Your task to perform on an android device: uninstall "Pinterest" Image 0: 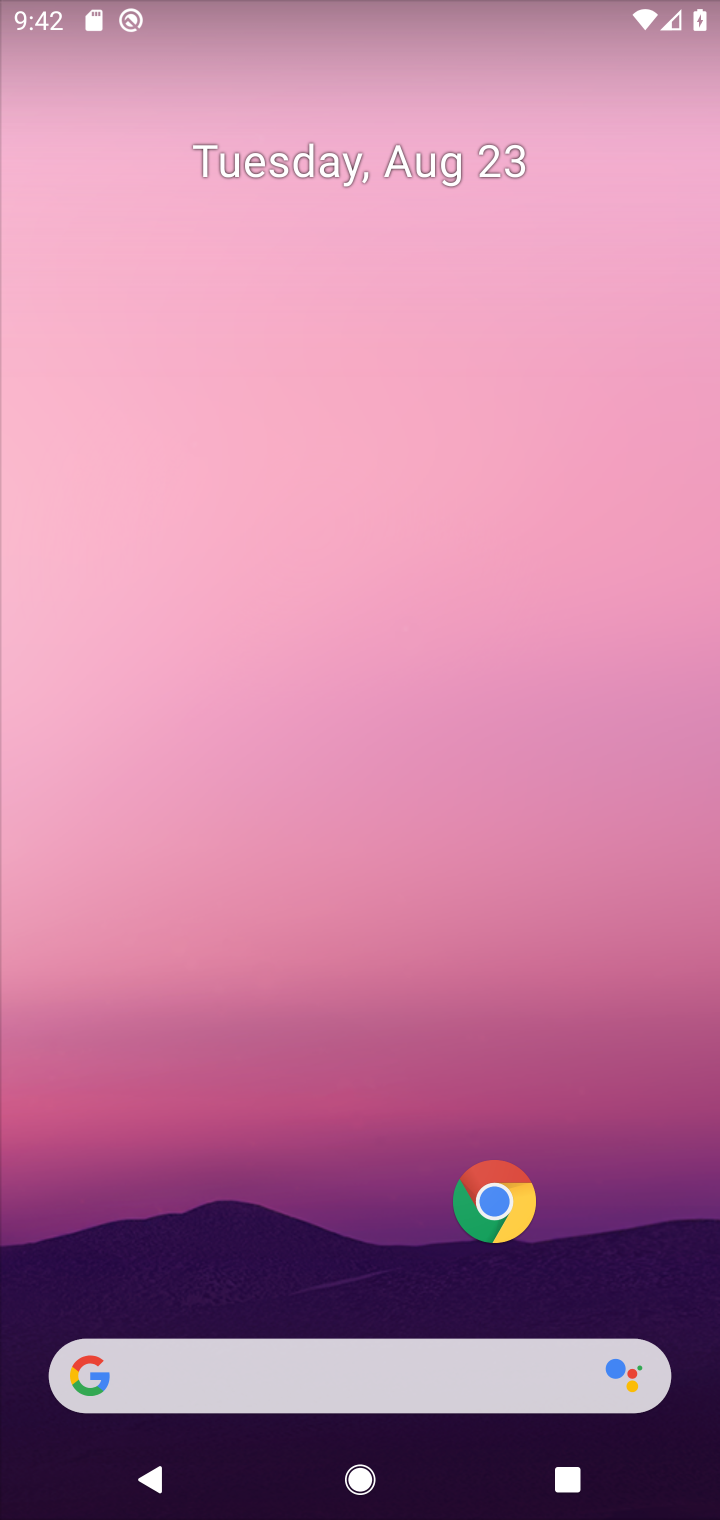
Step 0: drag from (280, 1306) to (358, 381)
Your task to perform on an android device: uninstall "Pinterest" Image 1: 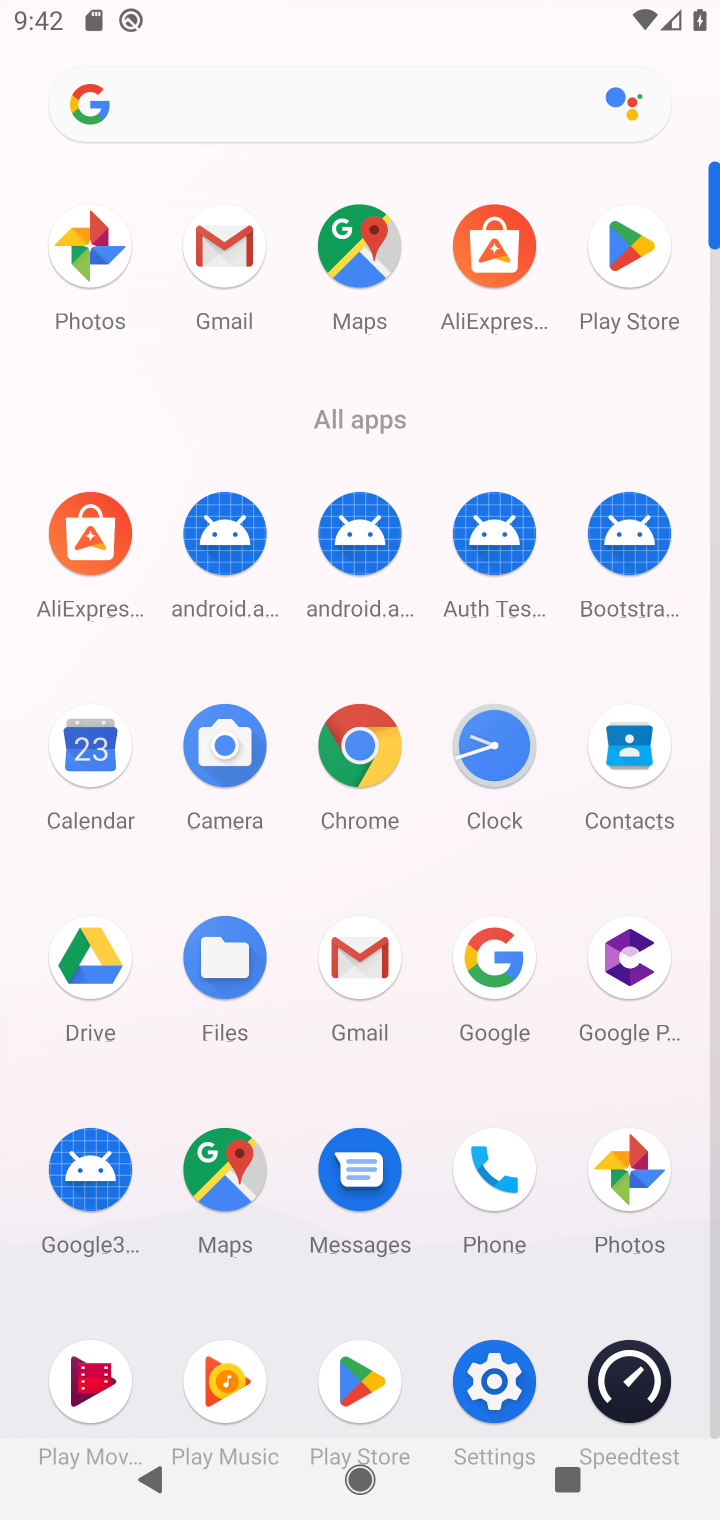
Step 1: click (637, 250)
Your task to perform on an android device: uninstall "Pinterest" Image 2: 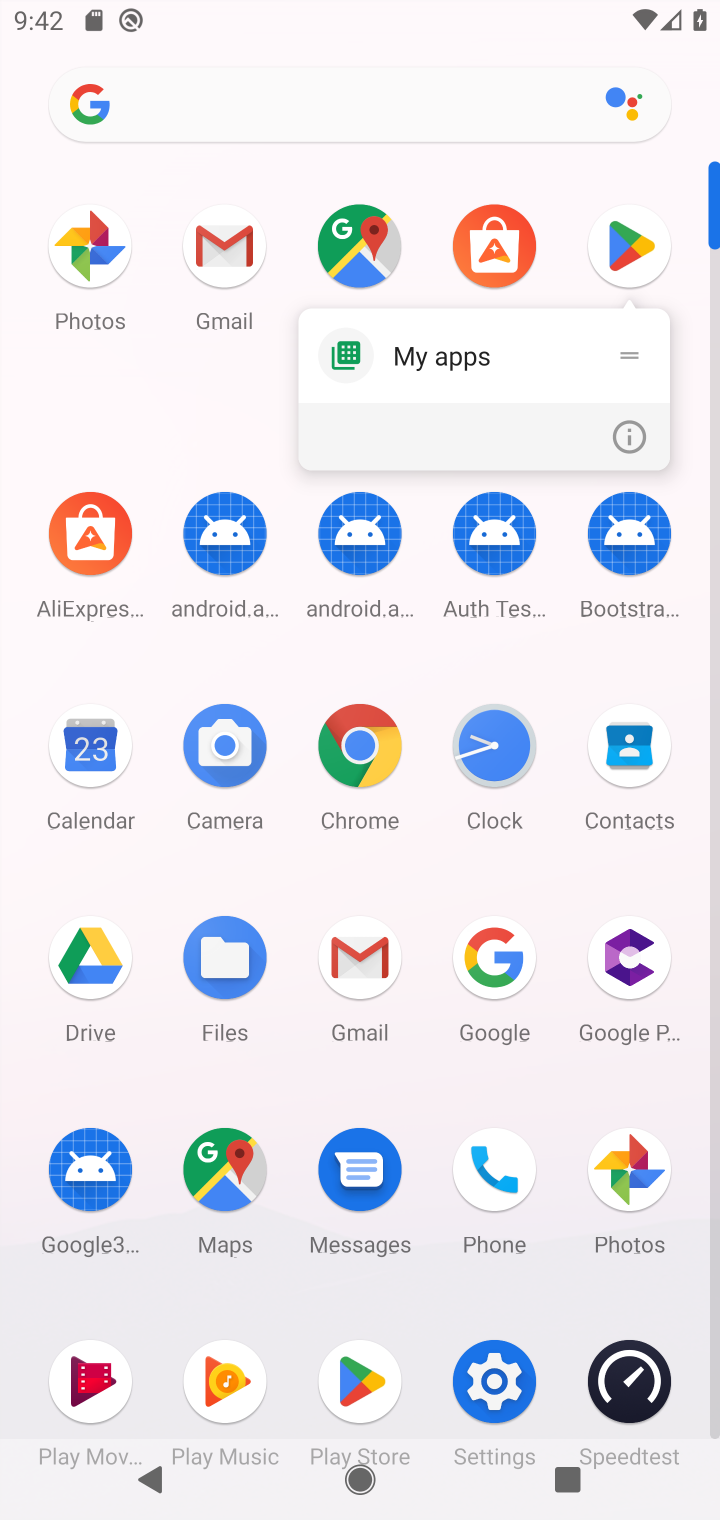
Step 2: click (630, 243)
Your task to perform on an android device: uninstall "Pinterest" Image 3: 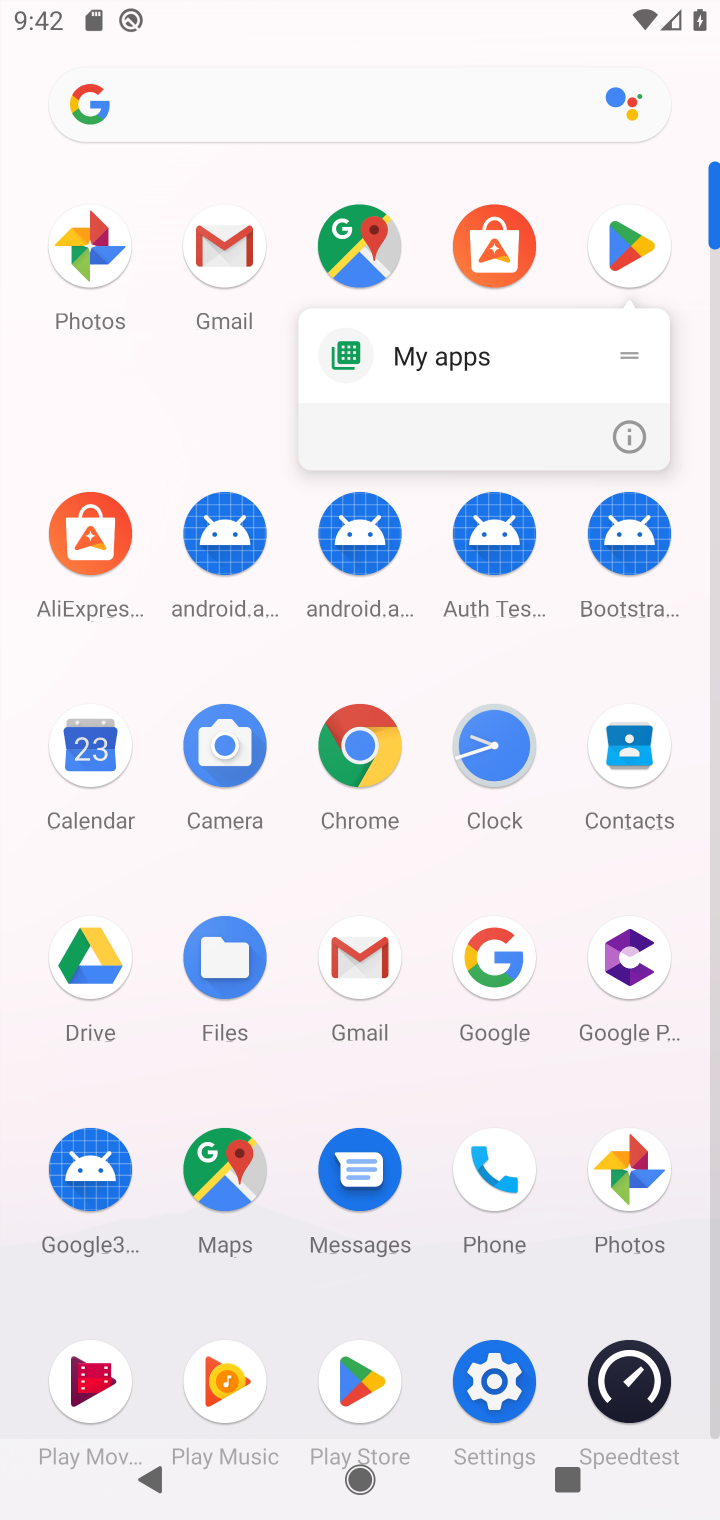
Step 3: click (630, 243)
Your task to perform on an android device: uninstall "Pinterest" Image 4: 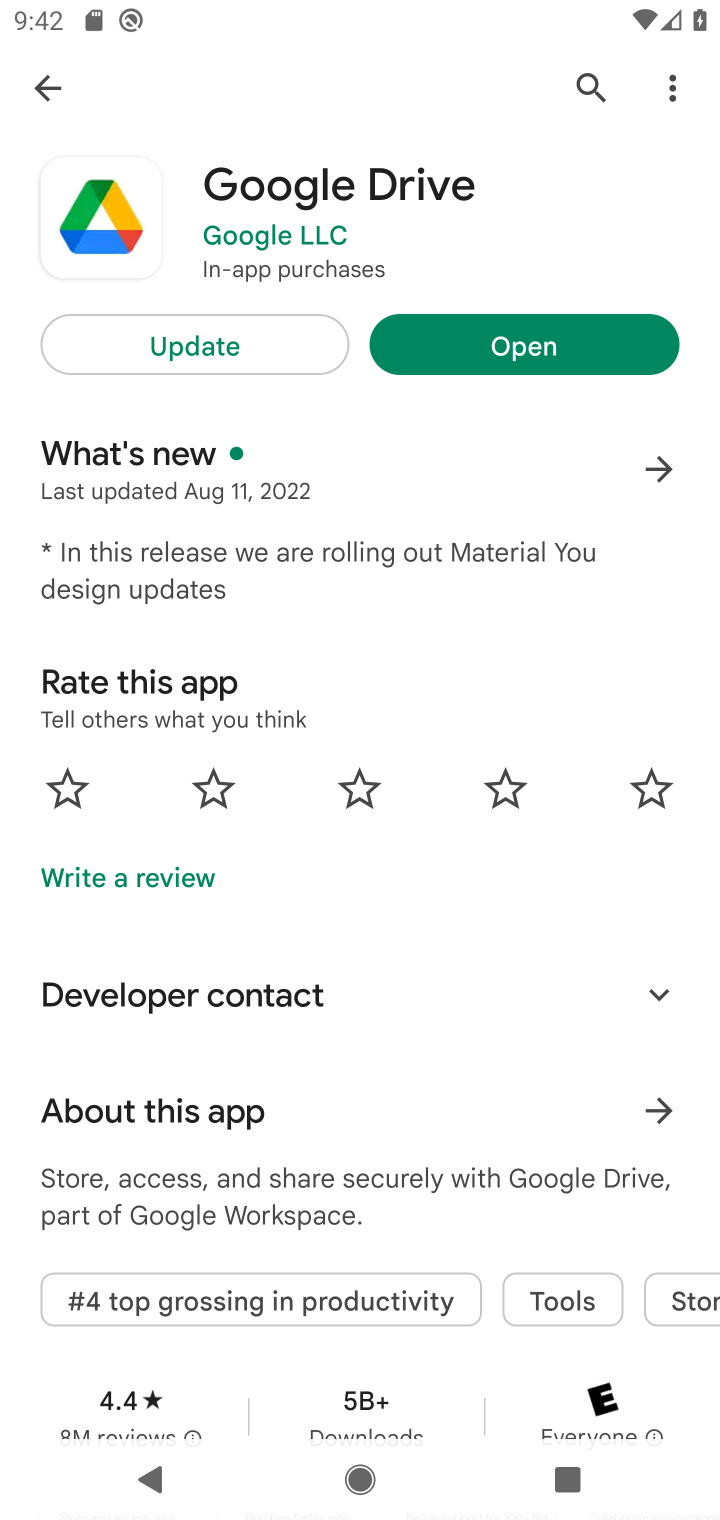
Step 4: click (48, 85)
Your task to perform on an android device: uninstall "Pinterest" Image 5: 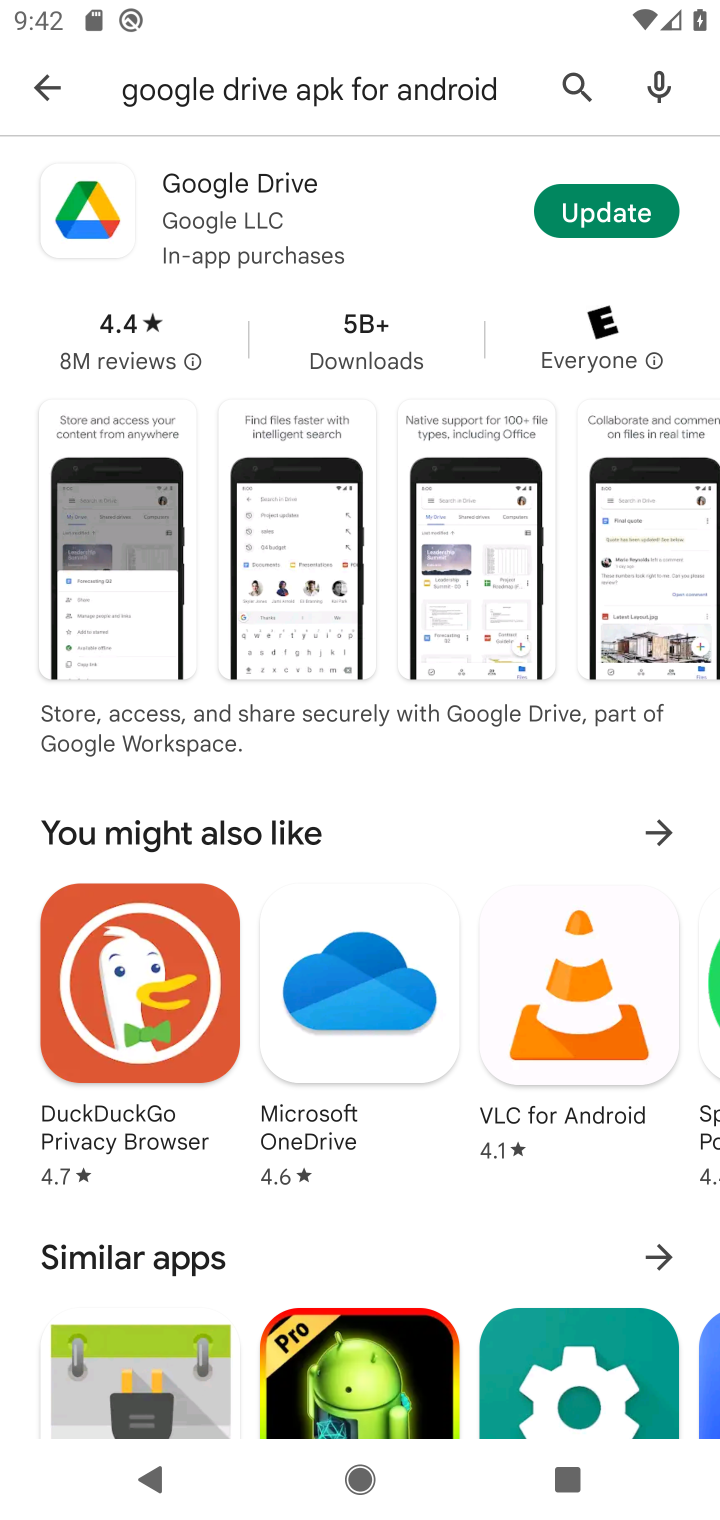
Step 5: click (26, 53)
Your task to perform on an android device: uninstall "Pinterest" Image 6: 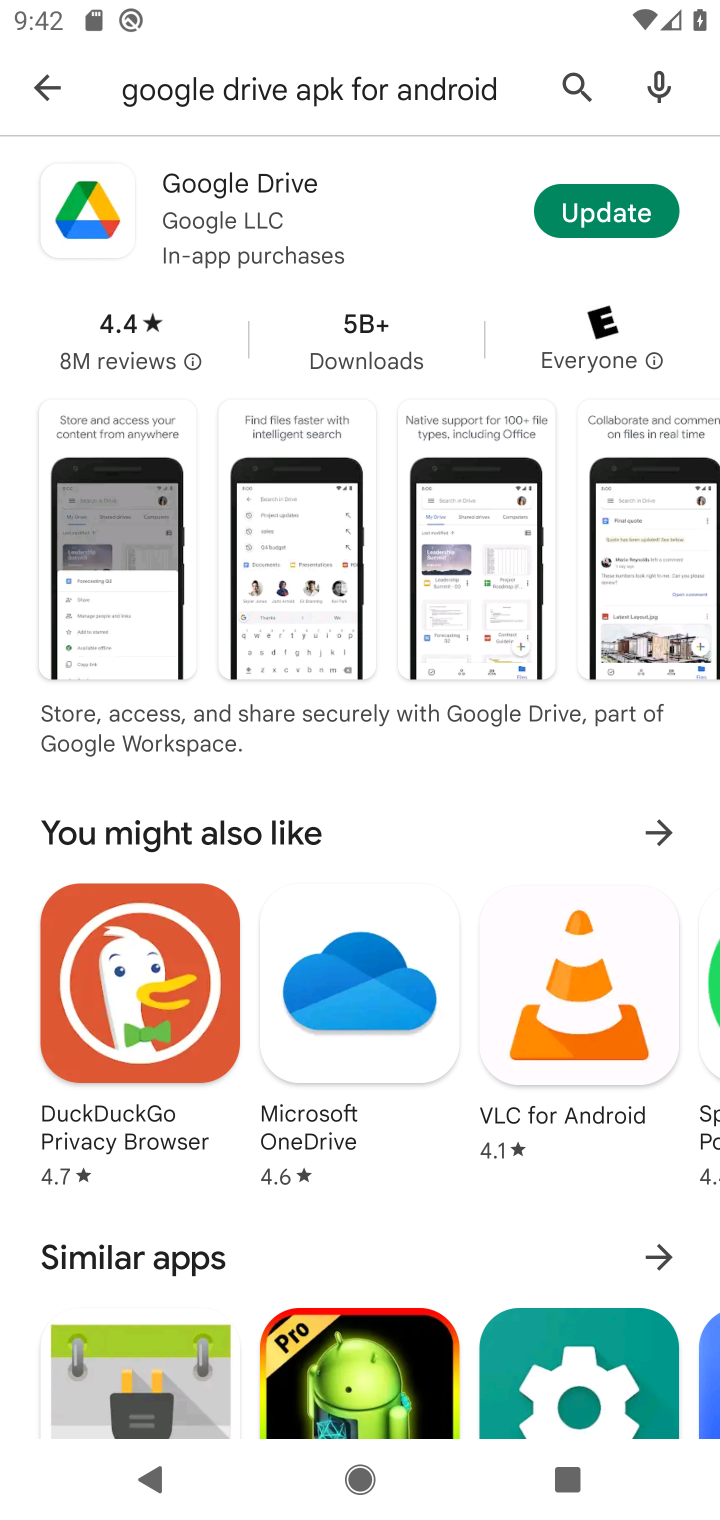
Step 6: click (567, 75)
Your task to perform on an android device: uninstall "Pinterest" Image 7: 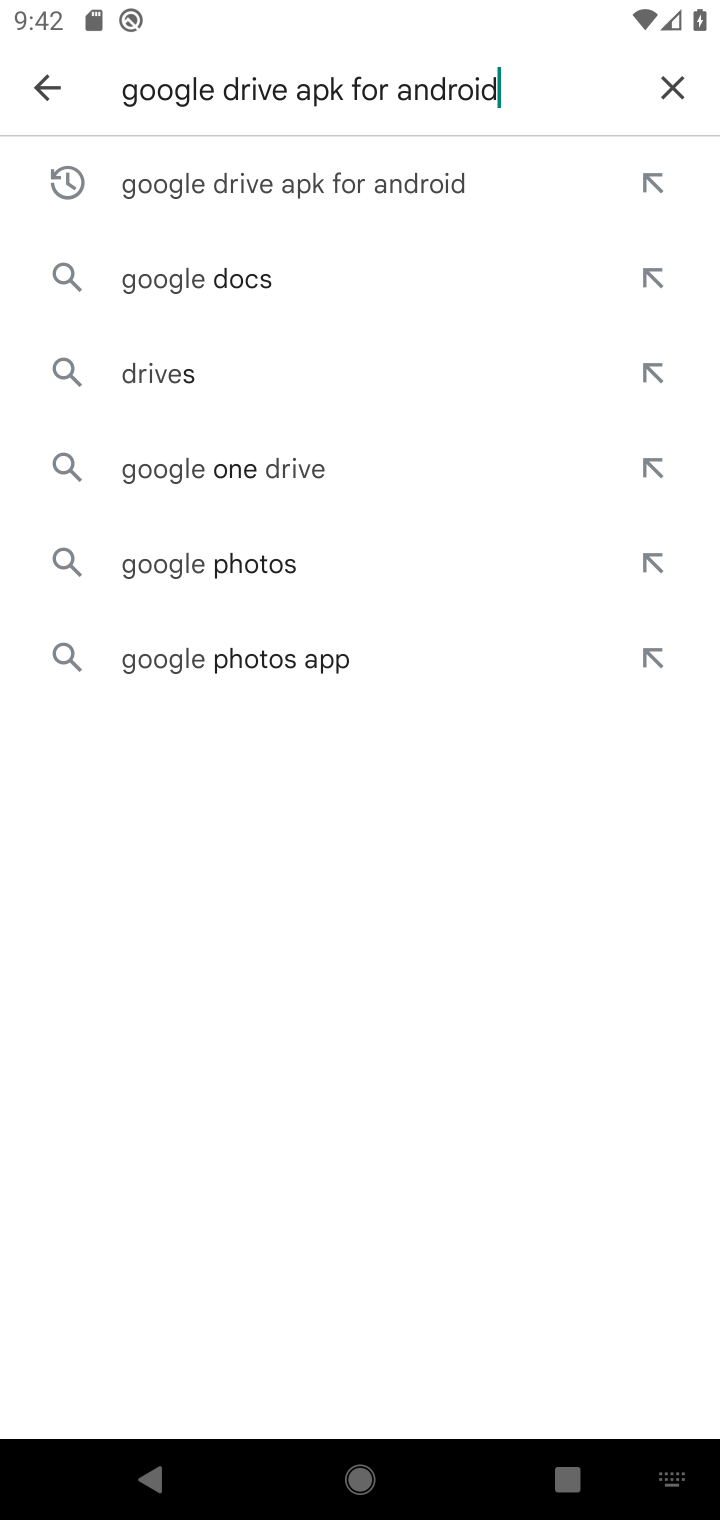
Step 7: click (672, 96)
Your task to perform on an android device: uninstall "Pinterest" Image 8: 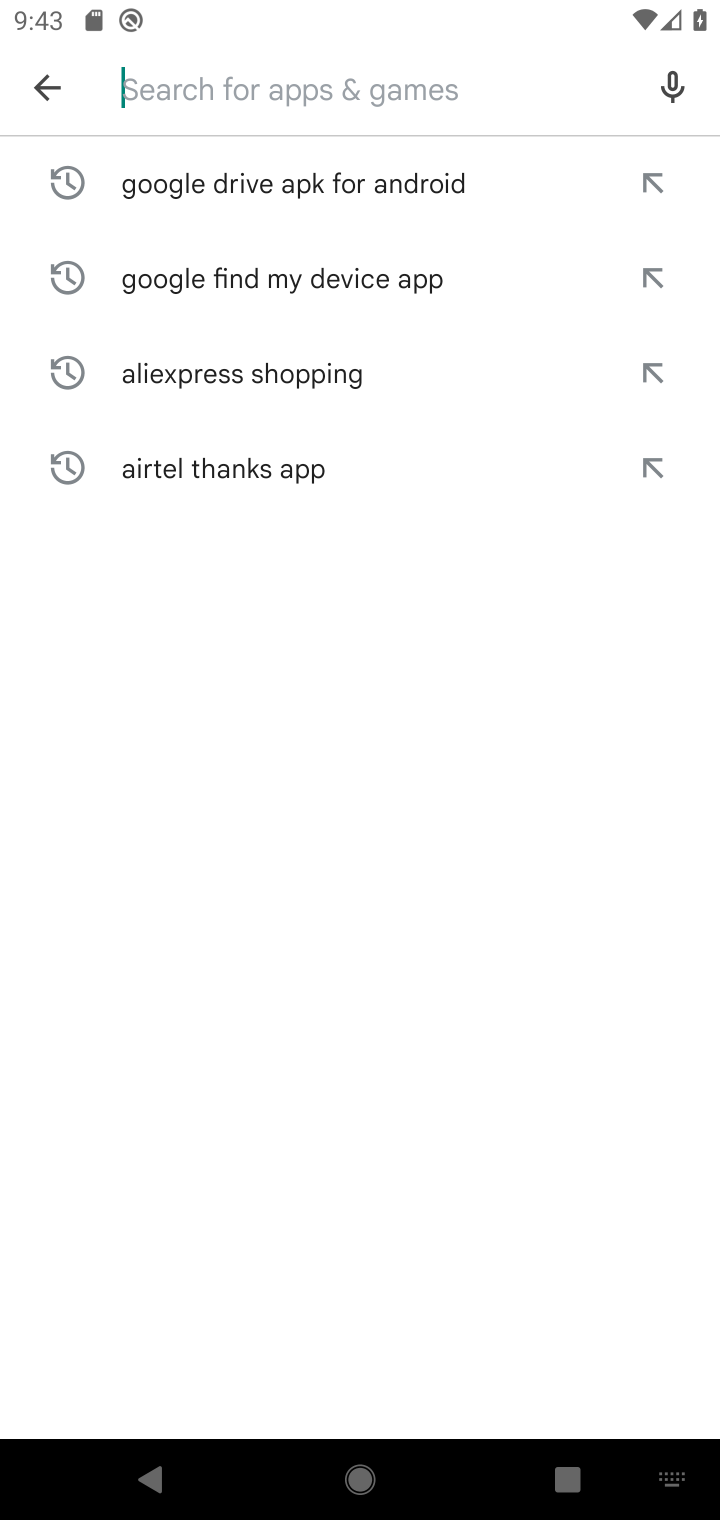
Step 8: click (301, 71)
Your task to perform on an android device: uninstall "Pinterest" Image 9: 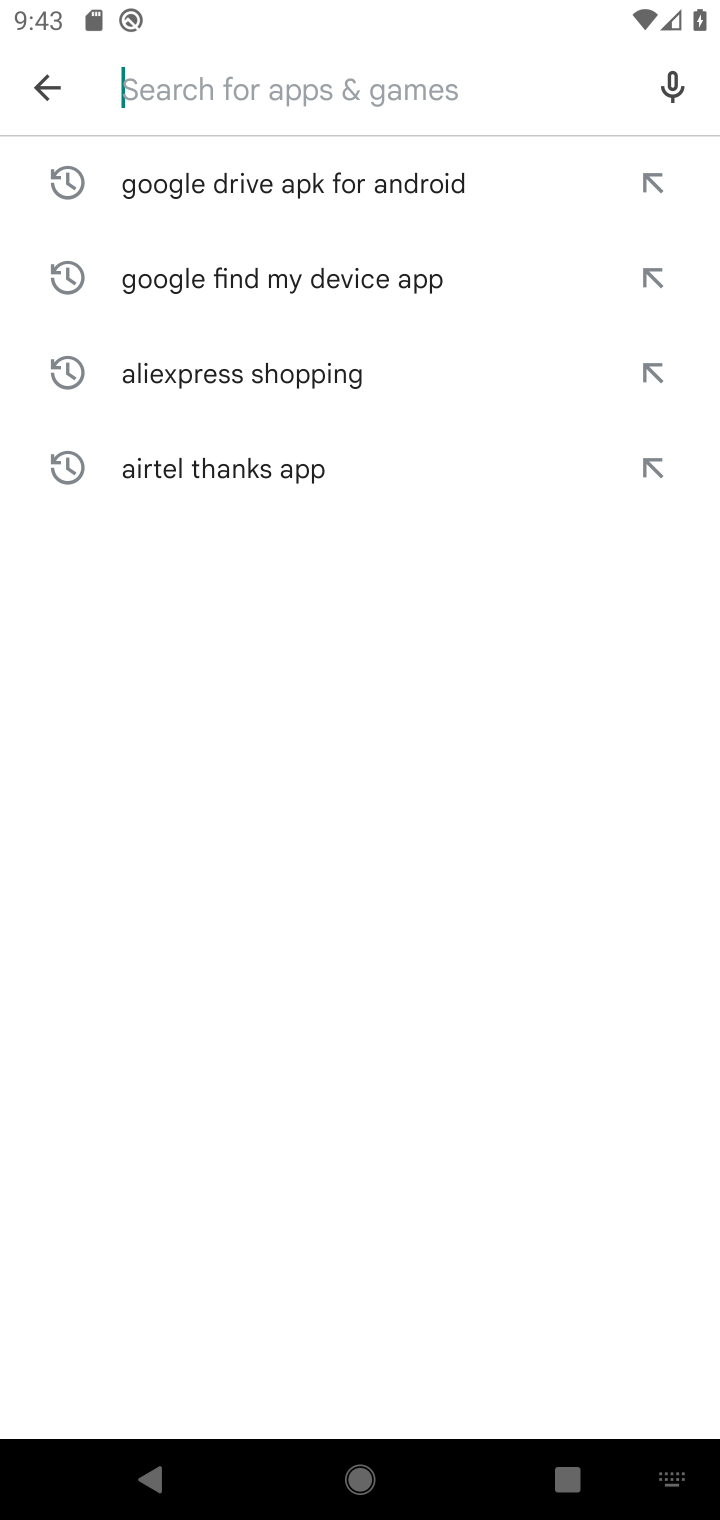
Step 9: type "Pinterest "
Your task to perform on an android device: uninstall "Pinterest" Image 10: 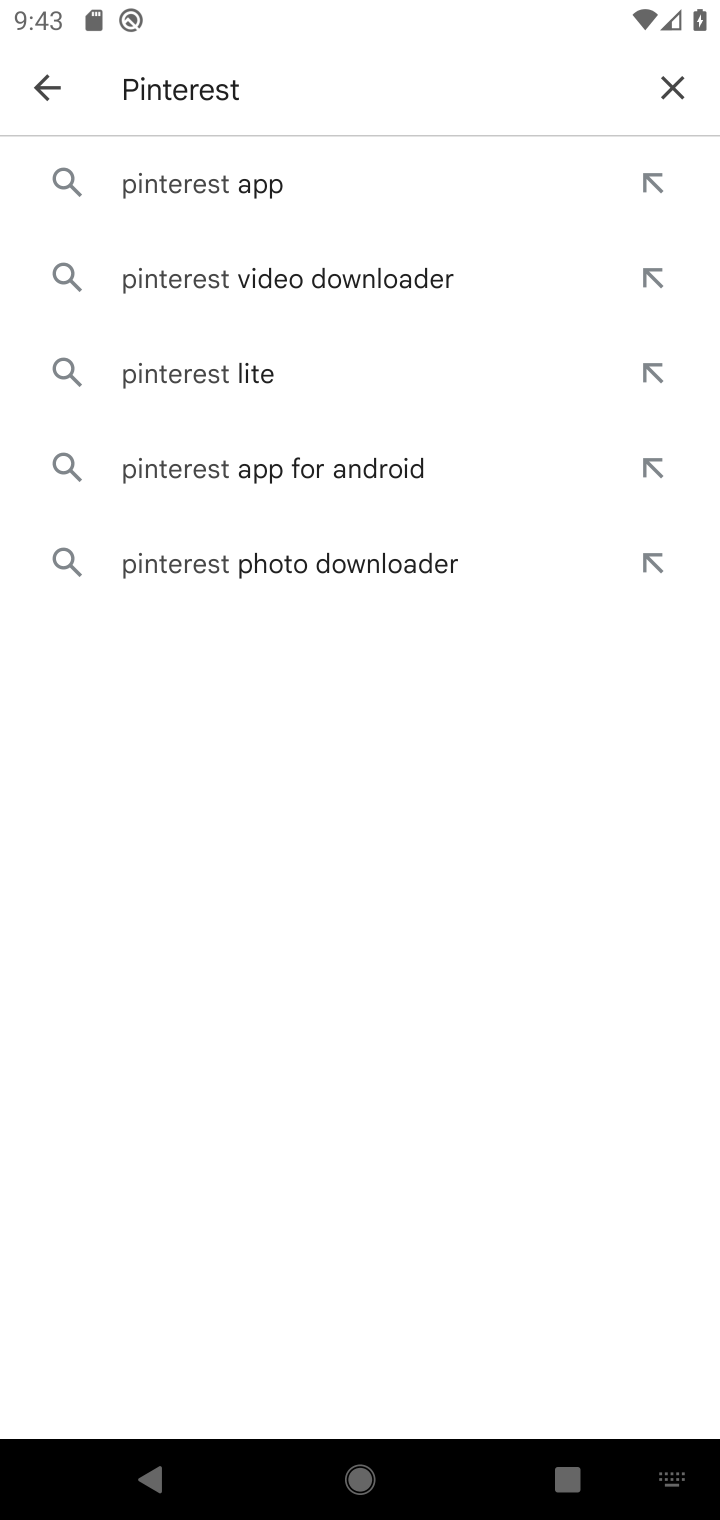
Step 10: click (289, 188)
Your task to perform on an android device: uninstall "Pinterest" Image 11: 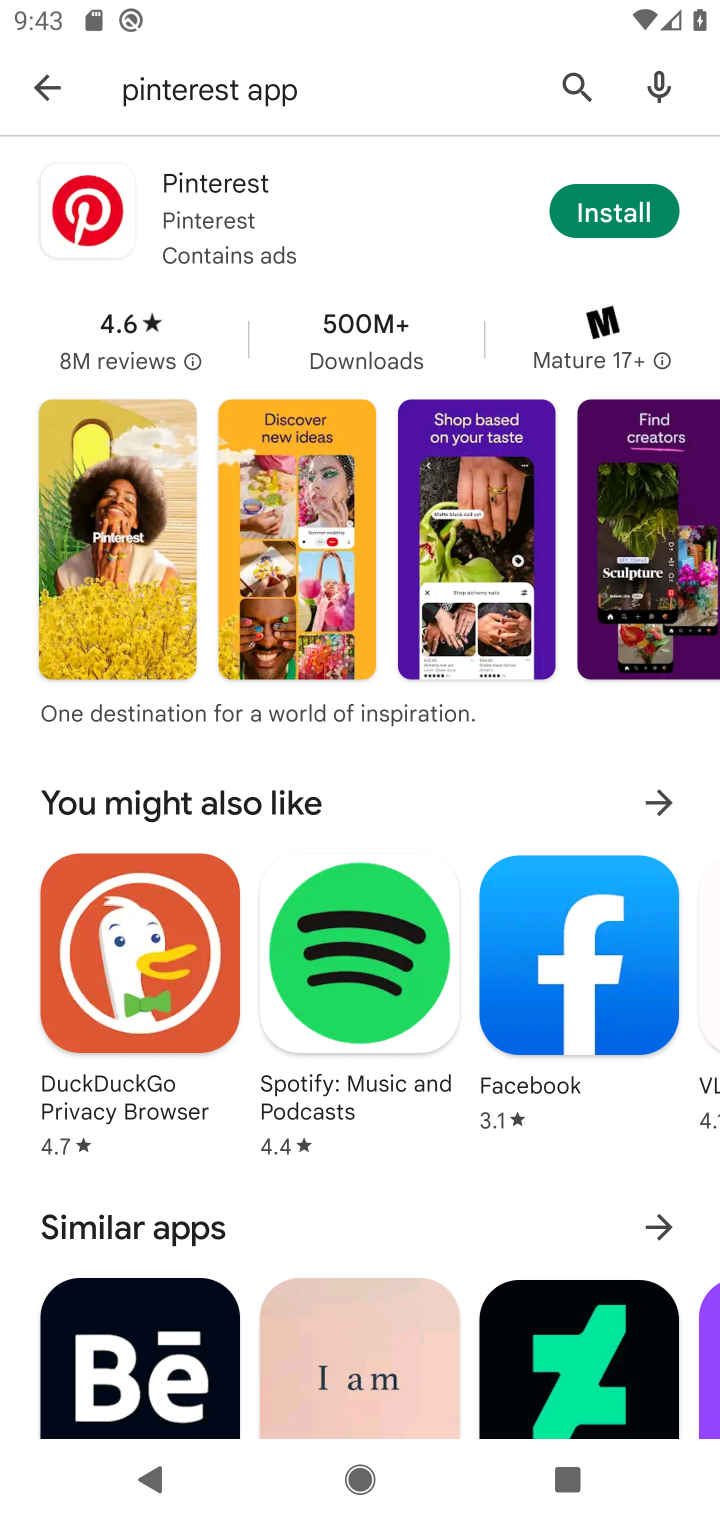
Step 11: click (267, 204)
Your task to perform on an android device: uninstall "Pinterest" Image 12: 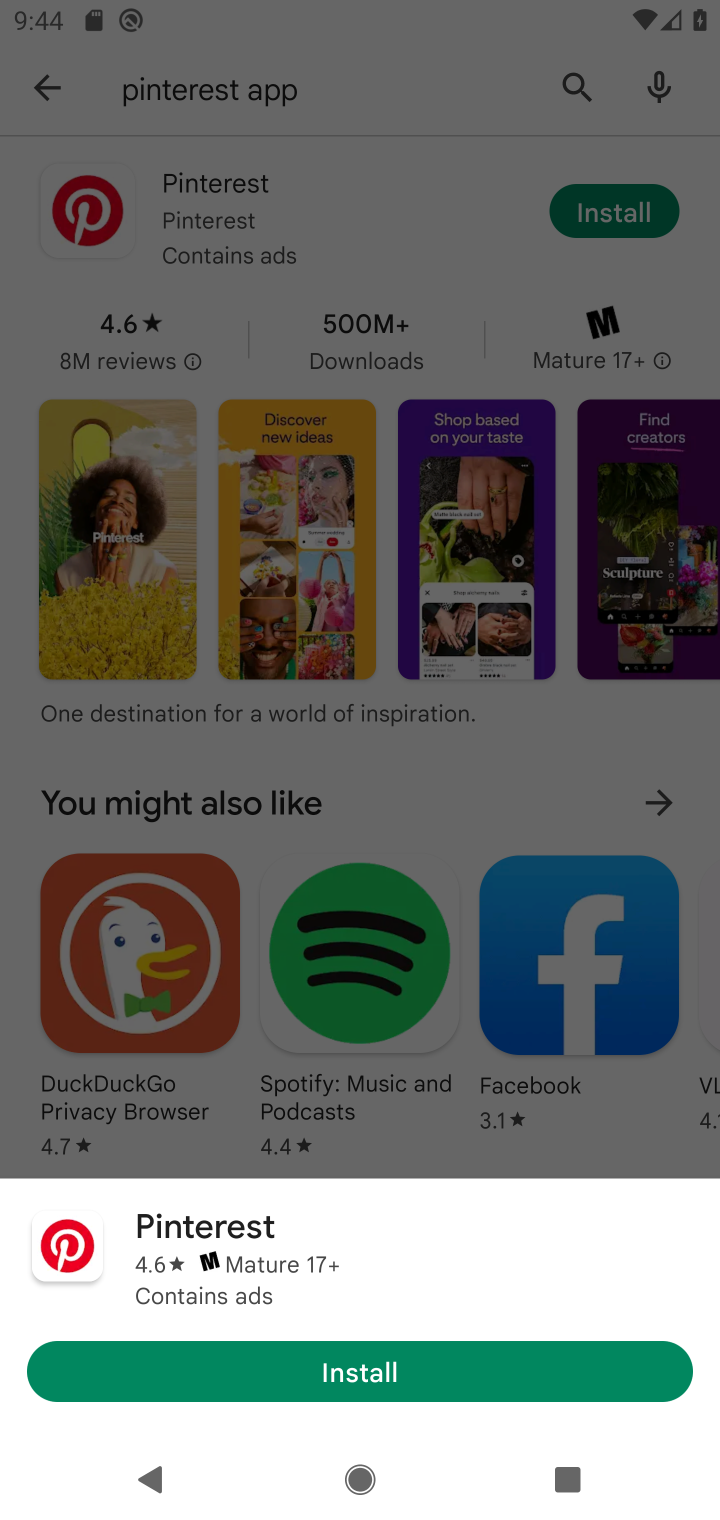
Step 12: task complete